Your task to perform on an android device: Go to Yahoo.com Image 0: 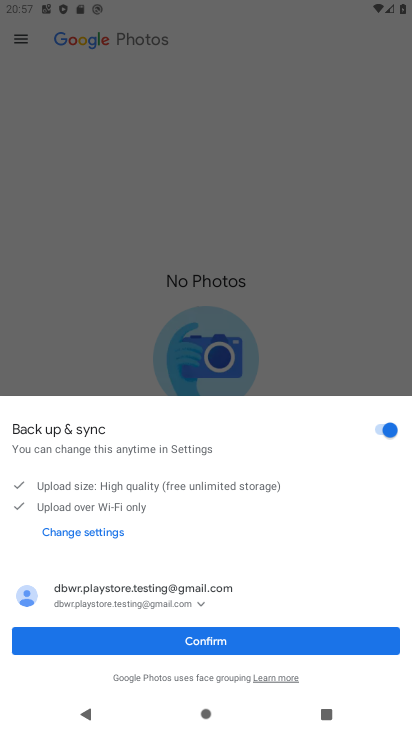
Step 0: press home button
Your task to perform on an android device: Go to Yahoo.com Image 1: 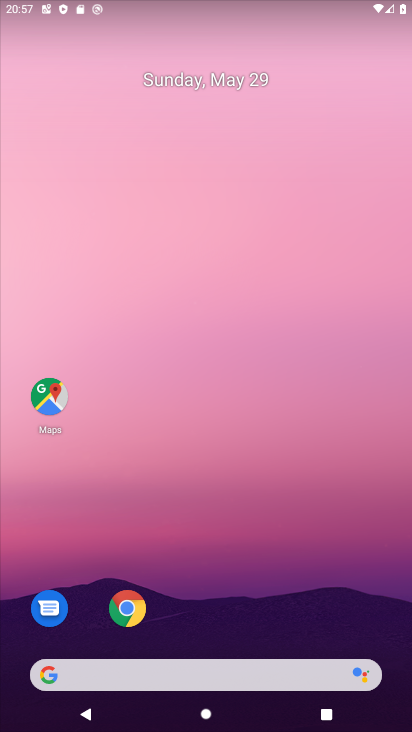
Step 1: drag from (334, 555) to (358, 258)
Your task to perform on an android device: Go to Yahoo.com Image 2: 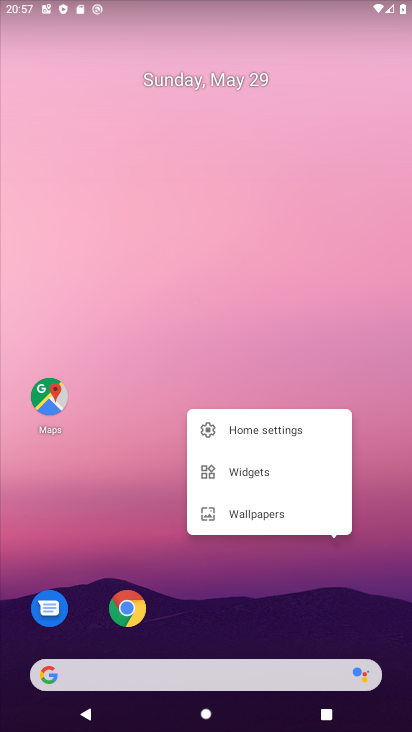
Step 2: click (387, 378)
Your task to perform on an android device: Go to Yahoo.com Image 3: 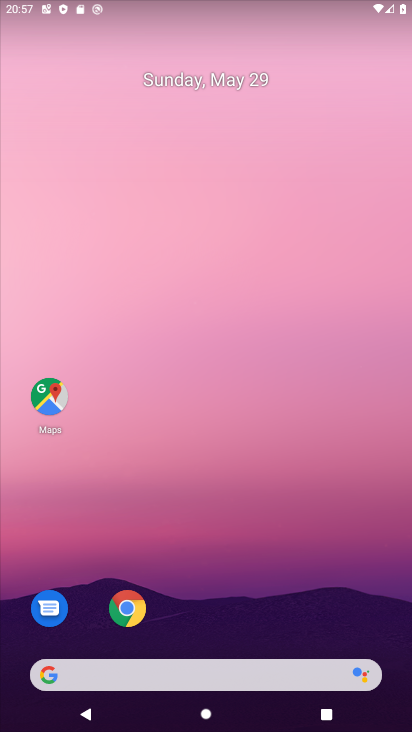
Step 3: drag from (305, 601) to (303, 239)
Your task to perform on an android device: Go to Yahoo.com Image 4: 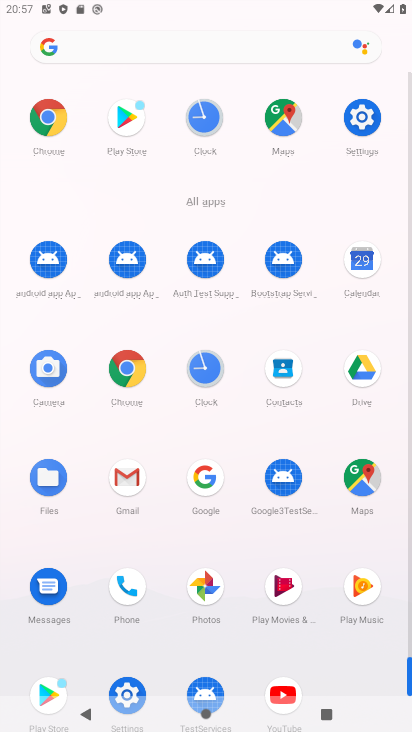
Step 4: click (125, 387)
Your task to perform on an android device: Go to Yahoo.com Image 5: 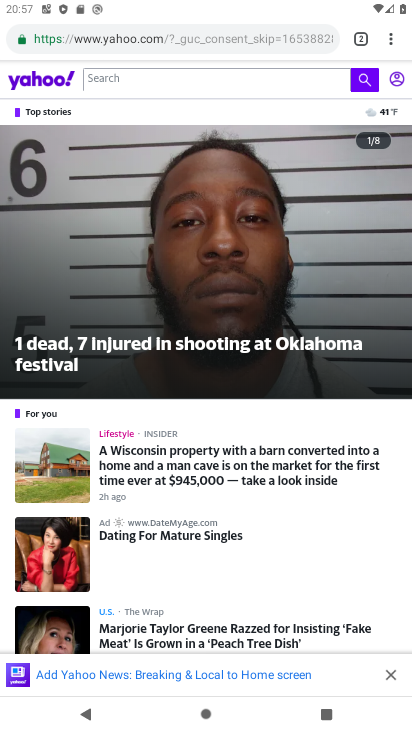
Step 5: task complete